Your task to perform on an android device: What's the weather going to be this weekend? Image 0: 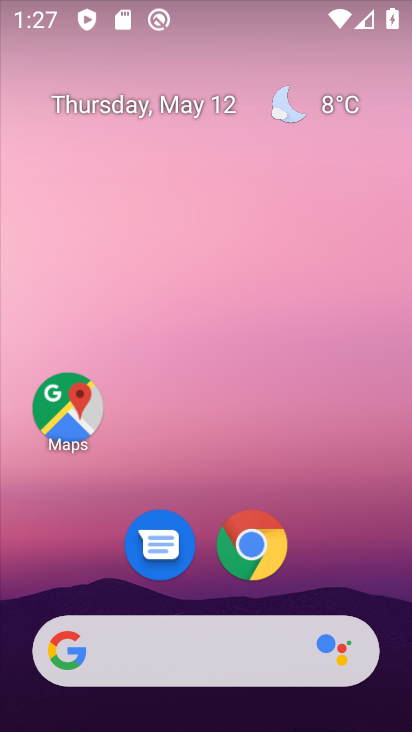
Step 0: click (244, 174)
Your task to perform on an android device: What's the weather going to be this weekend? Image 1: 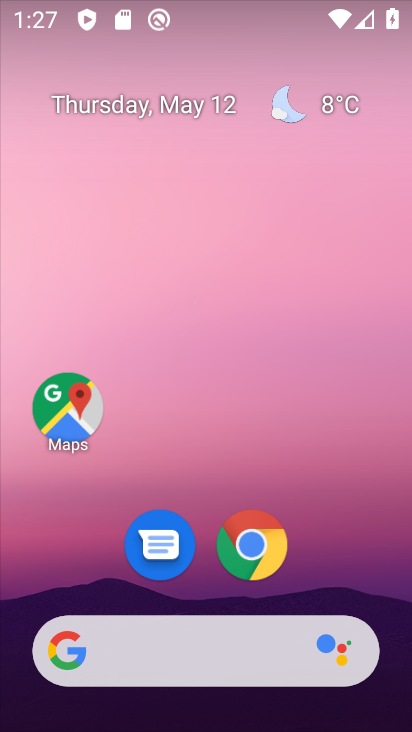
Step 1: click (191, 647)
Your task to perform on an android device: What's the weather going to be this weekend? Image 2: 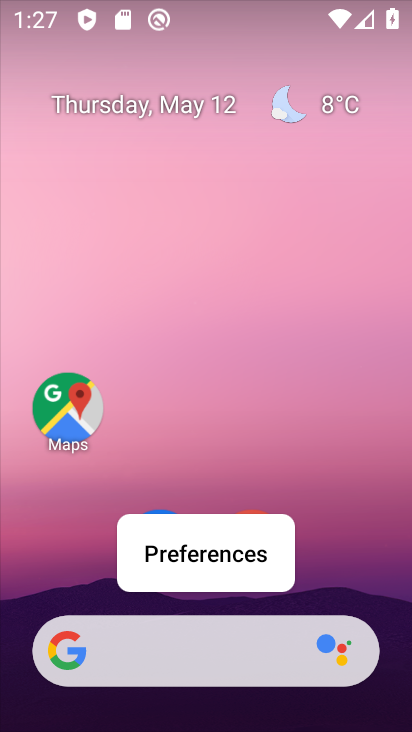
Step 2: click (230, 474)
Your task to perform on an android device: What's the weather going to be this weekend? Image 3: 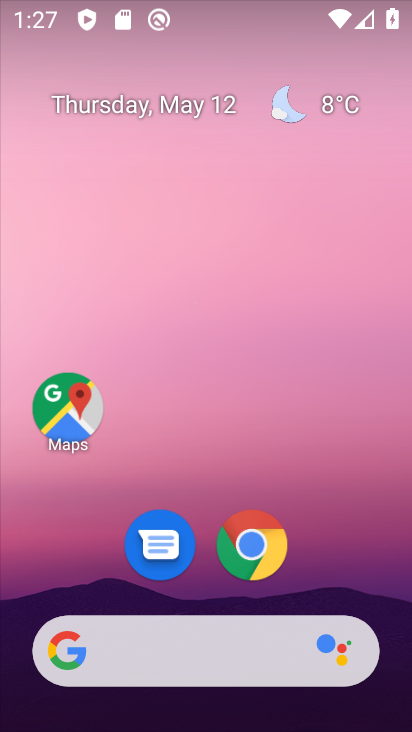
Step 3: drag from (231, 611) to (224, 231)
Your task to perform on an android device: What's the weather going to be this weekend? Image 4: 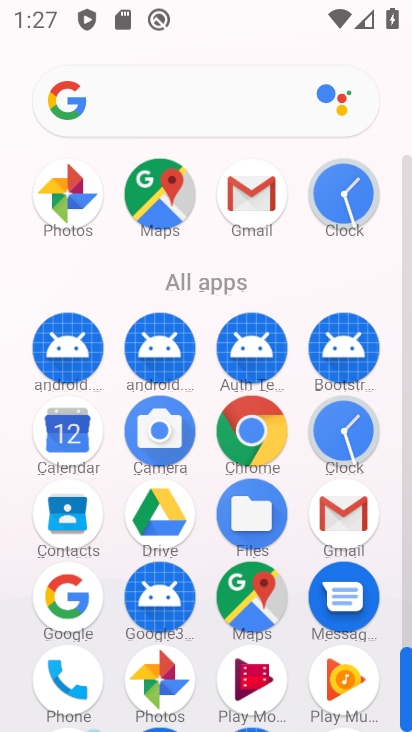
Step 4: click (165, 115)
Your task to perform on an android device: What's the weather going to be this weekend? Image 5: 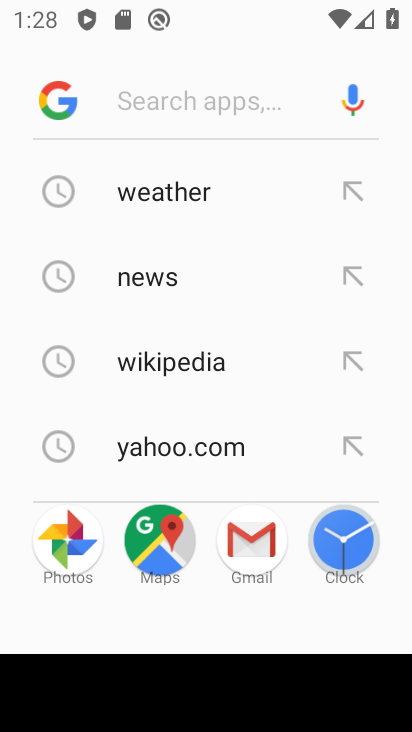
Step 5: type "weather going to be this weekend"
Your task to perform on an android device: What's the weather going to be this weekend? Image 6: 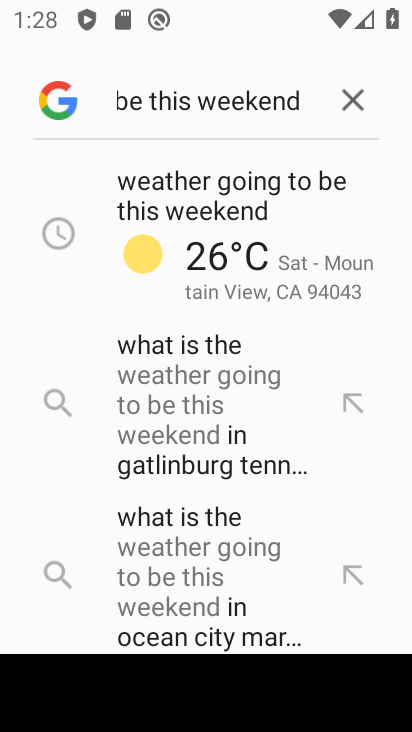
Step 6: click (219, 191)
Your task to perform on an android device: What's the weather going to be this weekend? Image 7: 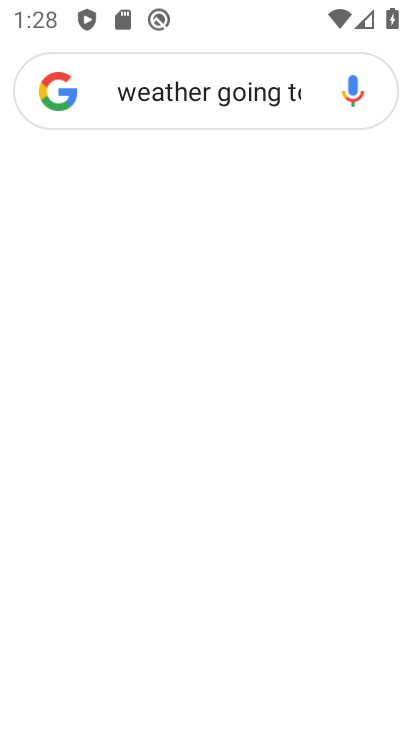
Step 7: click (242, 206)
Your task to perform on an android device: What's the weather going to be this weekend? Image 8: 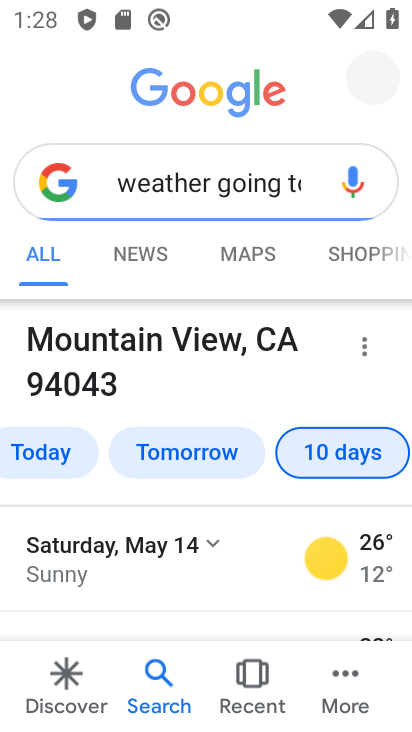
Step 8: task complete